Your task to perform on an android device: all mails in gmail Image 0: 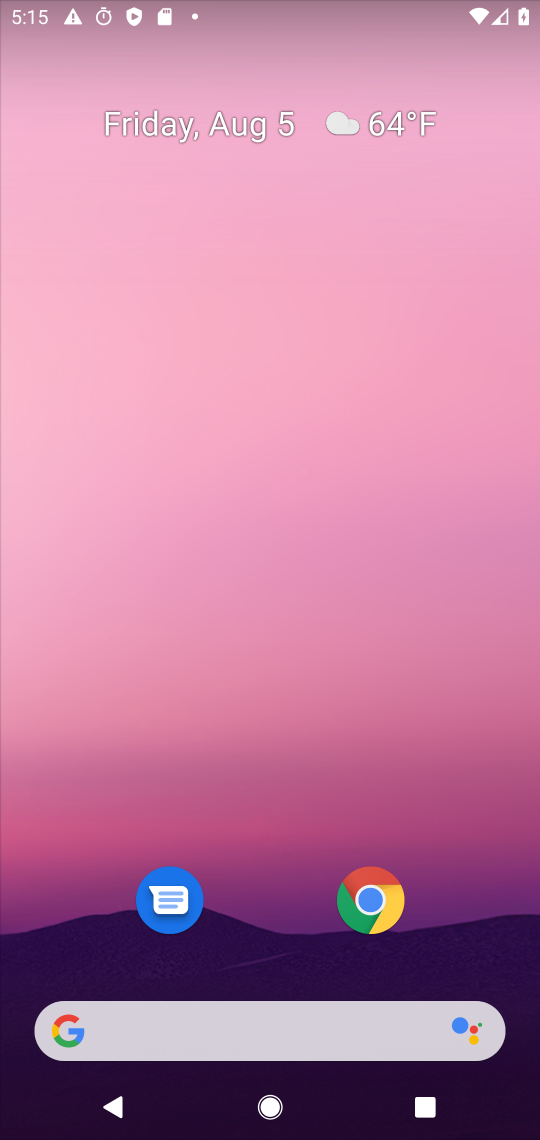
Step 0: drag from (296, 1024) to (514, 35)
Your task to perform on an android device: all mails in gmail Image 1: 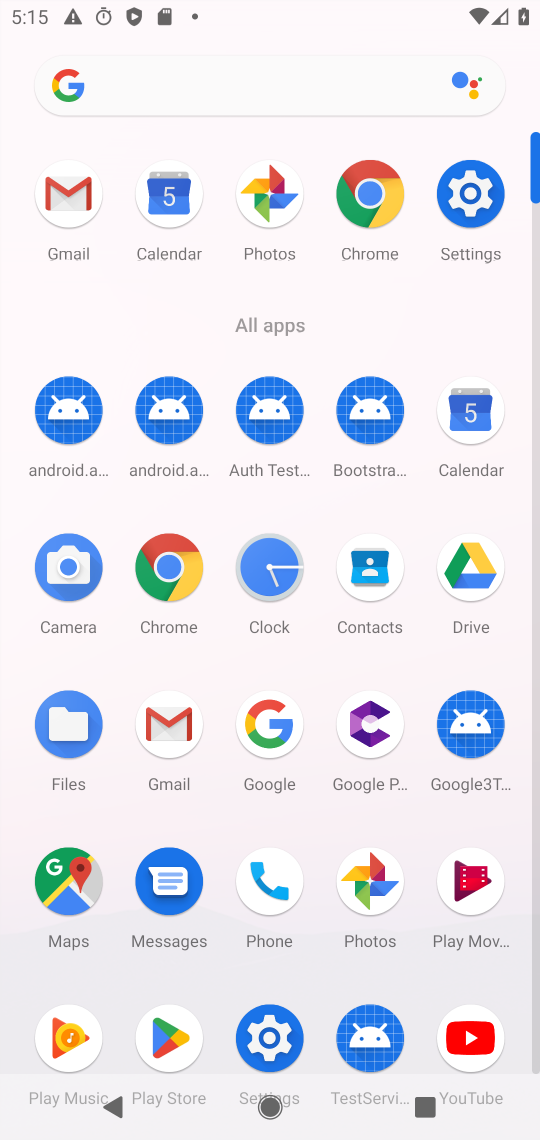
Step 1: click (175, 727)
Your task to perform on an android device: all mails in gmail Image 2: 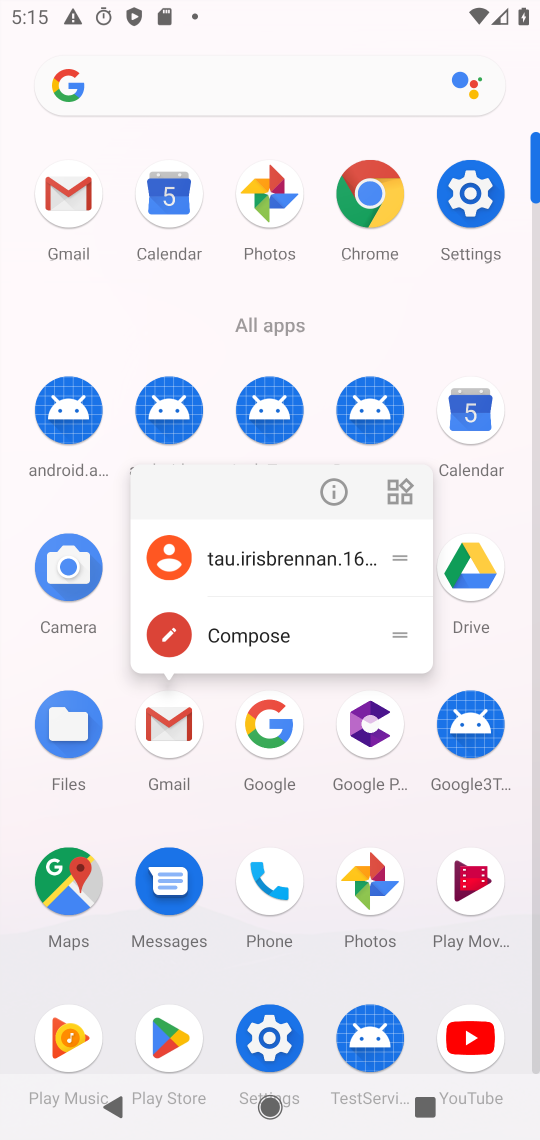
Step 2: click (175, 727)
Your task to perform on an android device: all mails in gmail Image 3: 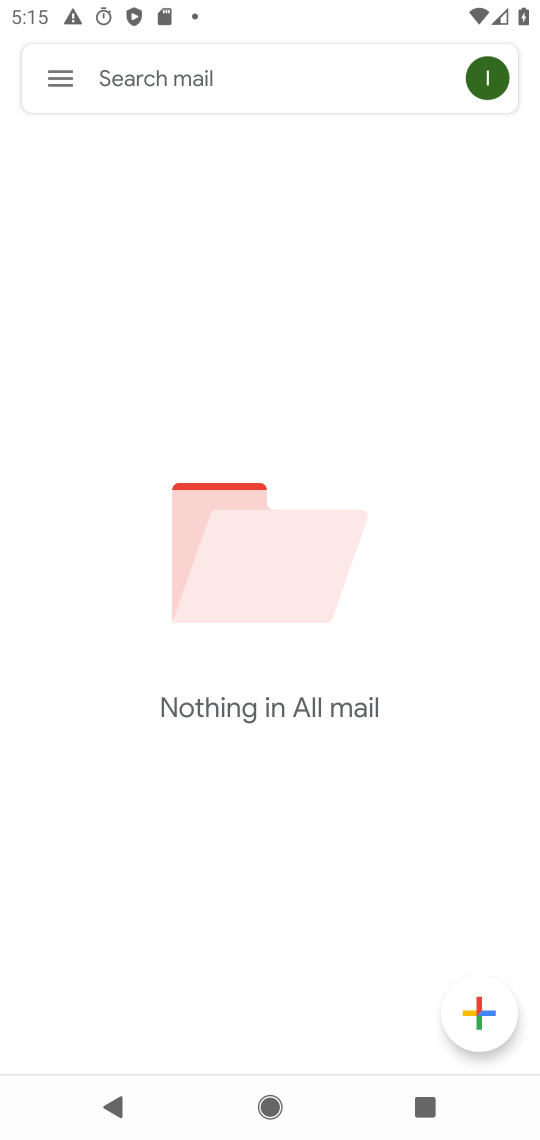
Step 3: task complete